Your task to perform on an android device: Go to location settings Image 0: 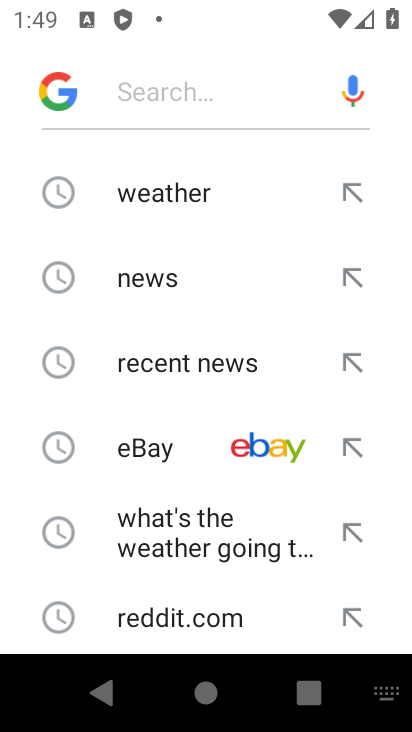
Step 0: press home button
Your task to perform on an android device: Go to location settings Image 1: 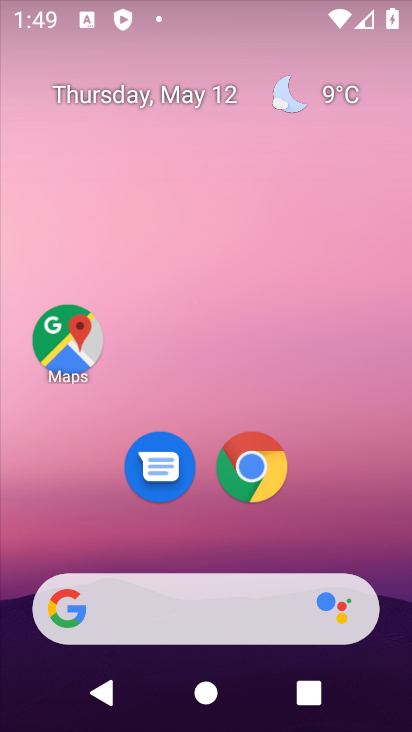
Step 1: drag from (209, 557) to (260, 284)
Your task to perform on an android device: Go to location settings Image 2: 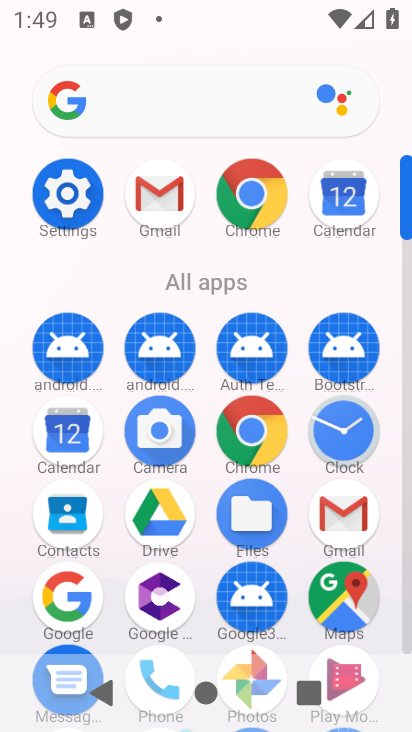
Step 2: click (58, 192)
Your task to perform on an android device: Go to location settings Image 3: 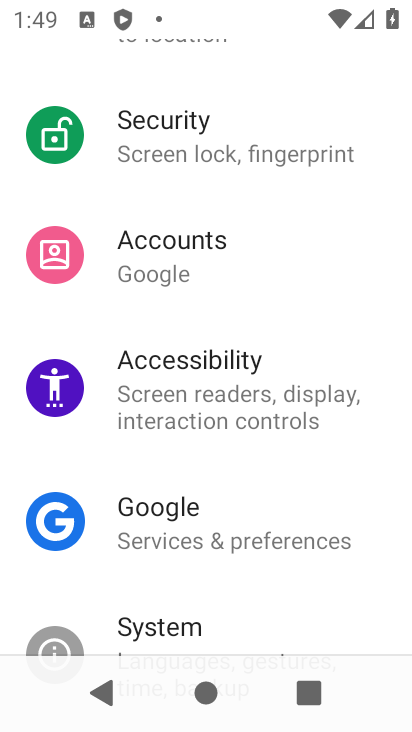
Step 3: drag from (216, 568) to (324, 170)
Your task to perform on an android device: Go to location settings Image 4: 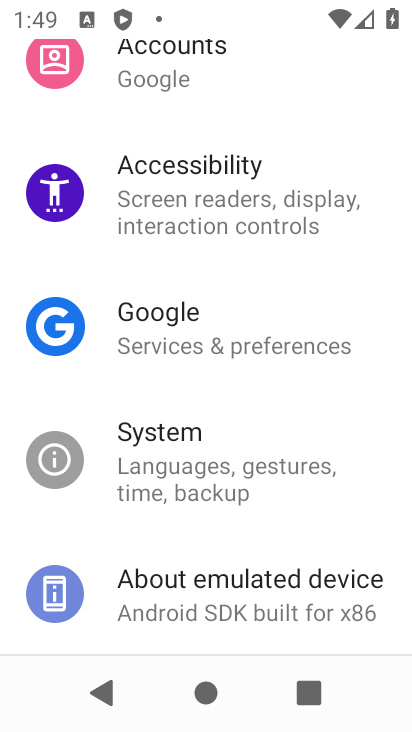
Step 4: drag from (256, 161) to (245, 567)
Your task to perform on an android device: Go to location settings Image 5: 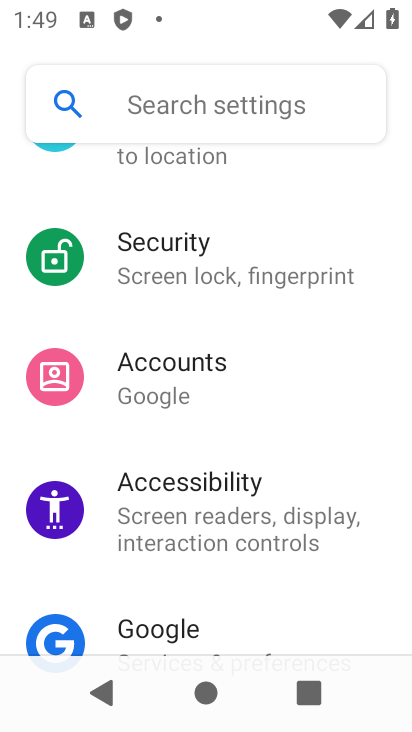
Step 5: drag from (222, 180) to (226, 611)
Your task to perform on an android device: Go to location settings Image 6: 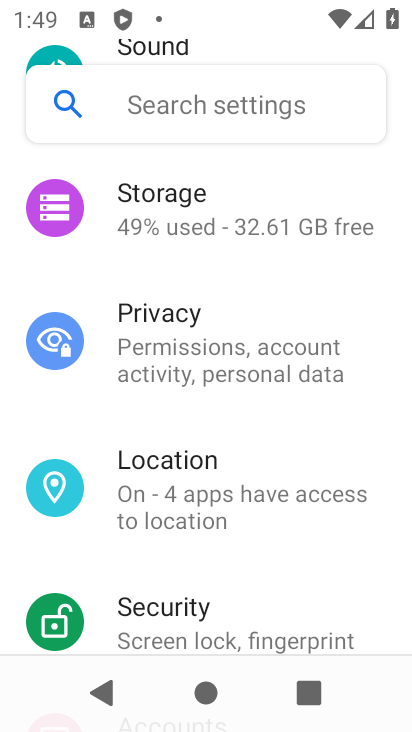
Step 6: click (183, 481)
Your task to perform on an android device: Go to location settings Image 7: 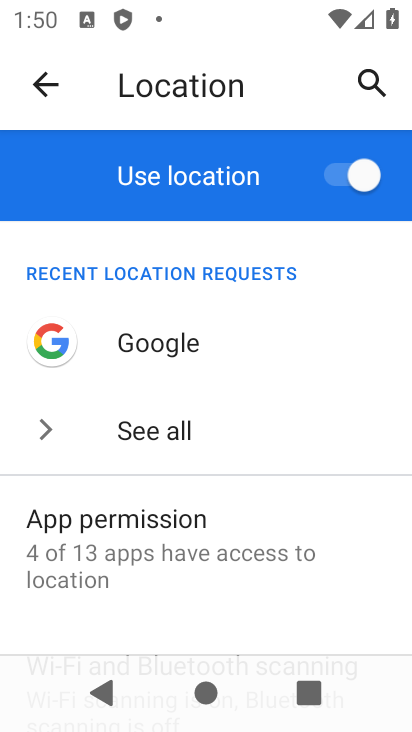
Step 7: task complete